Your task to perform on an android device: open the mobile data screen to see how much data has been used Image 0: 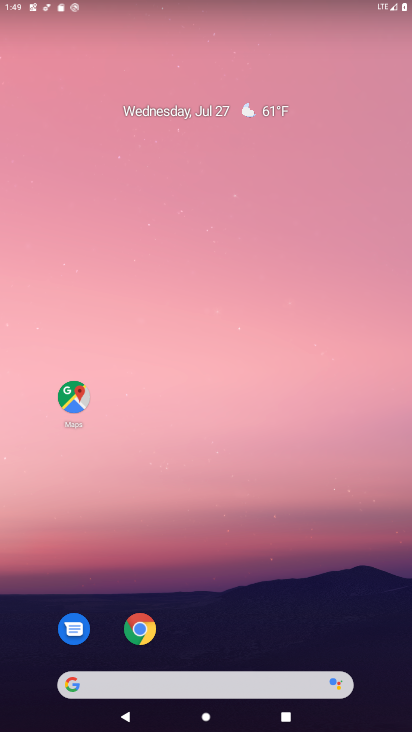
Step 0: drag from (196, 681) to (168, 111)
Your task to perform on an android device: open the mobile data screen to see how much data has been used Image 1: 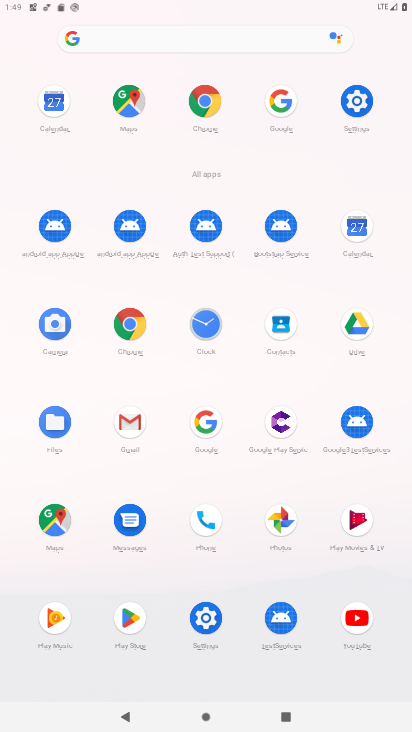
Step 1: click (205, 622)
Your task to perform on an android device: open the mobile data screen to see how much data has been used Image 2: 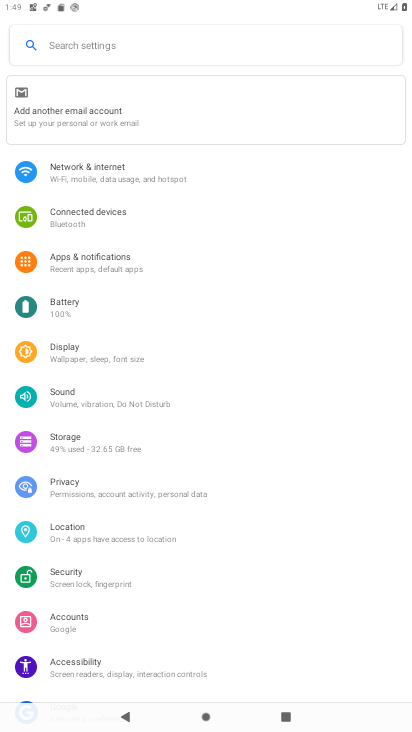
Step 2: click (87, 167)
Your task to perform on an android device: open the mobile data screen to see how much data has been used Image 3: 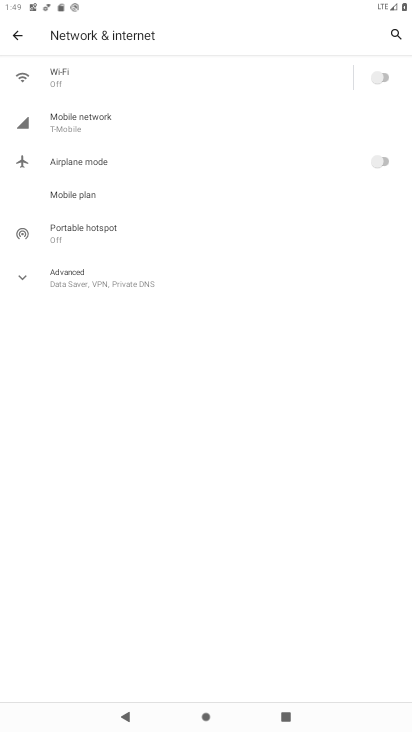
Step 3: click (143, 115)
Your task to perform on an android device: open the mobile data screen to see how much data has been used Image 4: 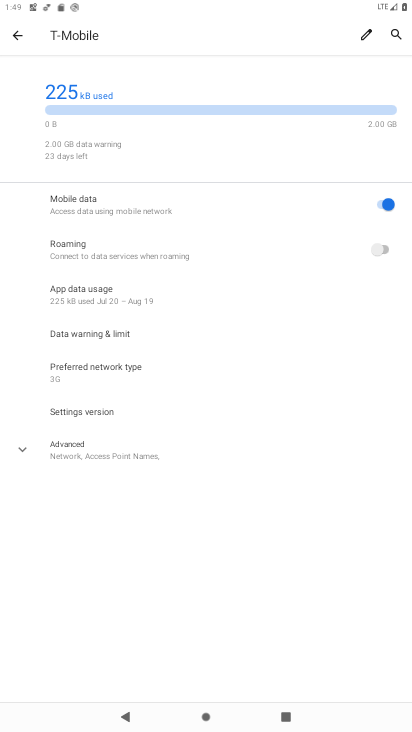
Step 4: task complete